Your task to perform on an android device: Open Google Chrome and click the shortcut for Amazon.com Image 0: 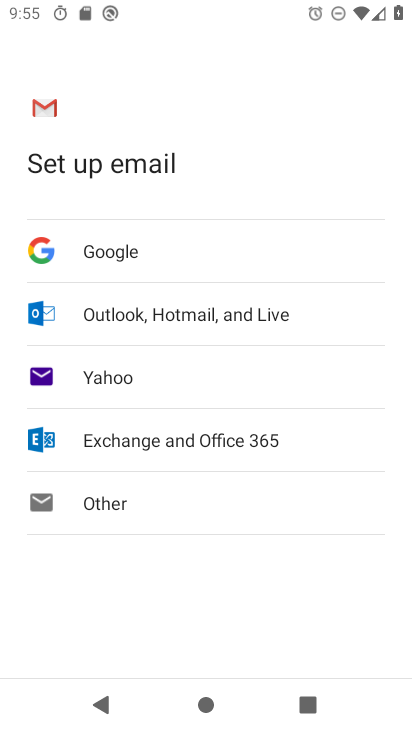
Step 0: press home button
Your task to perform on an android device: Open Google Chrome and click the shortcut for Amazon.com Image 1: 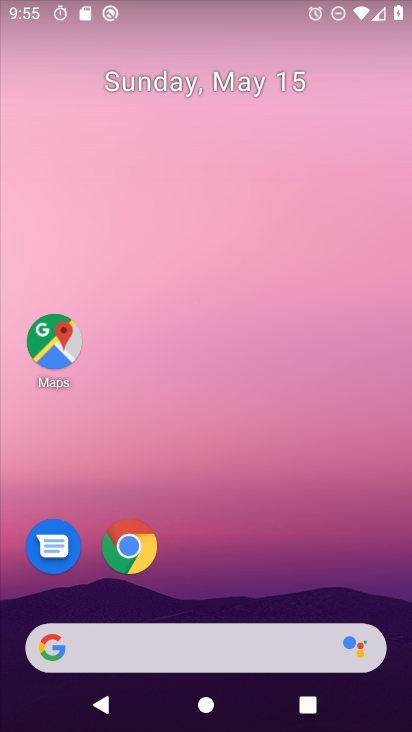
Step 1: click (126, 544)
Your task to perform on an android device: Open Google Chrome and click the shortcut for Amazon.com Image 2: 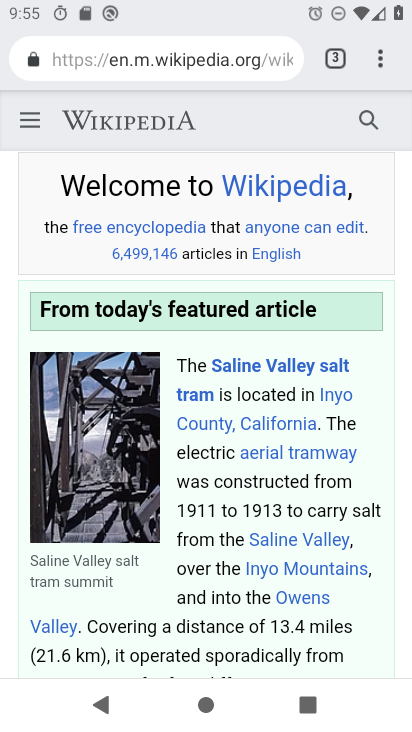
Step 2: click (379, 51)
Your task to perform on an android device: Open Google Chrome and click the shortcut for Amazon.com Image 3: 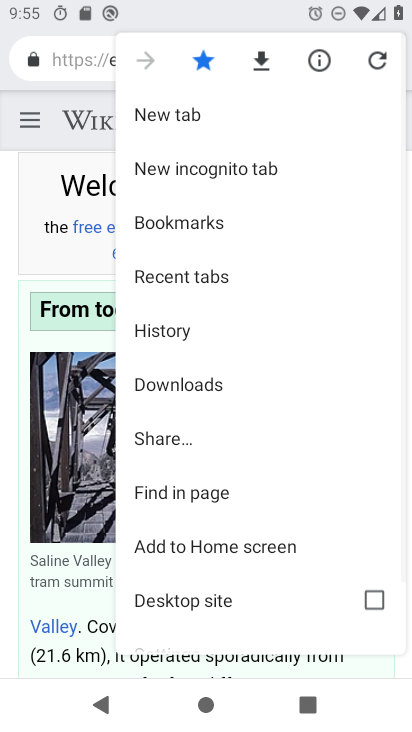
Step 3: click (323, 111)
Your task to perform on an android device: Open Google Chrome and click the shortcut for Amazon.com Image 4: 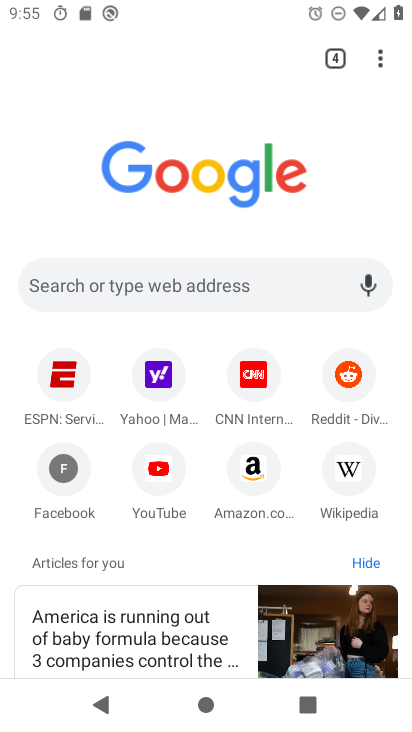
Step 4: click (252, 466)
Your task to perform on an android device: Open Google Chrome and click the shortcut for Amazon.com Image 5: 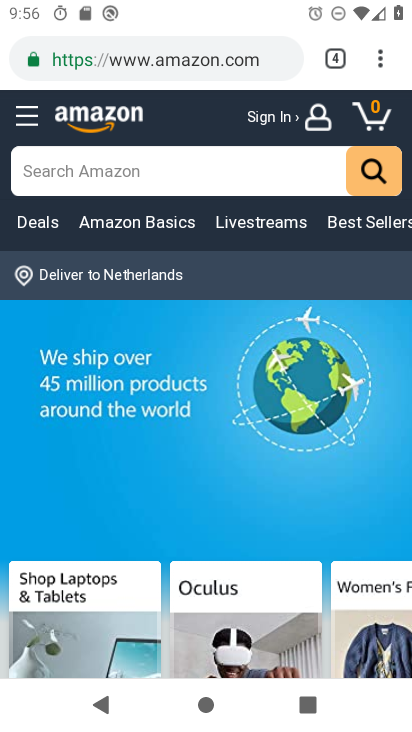
Step 5: task complete